Your task to perform on an android device: Is it going to rain this weekend? Image 0: 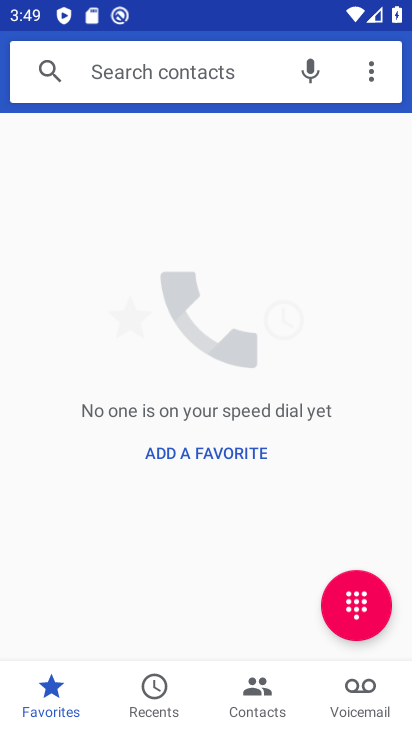
Step 0: press home button
Your task to perform on an android device: Is it going to rain this weekend? Image 1: 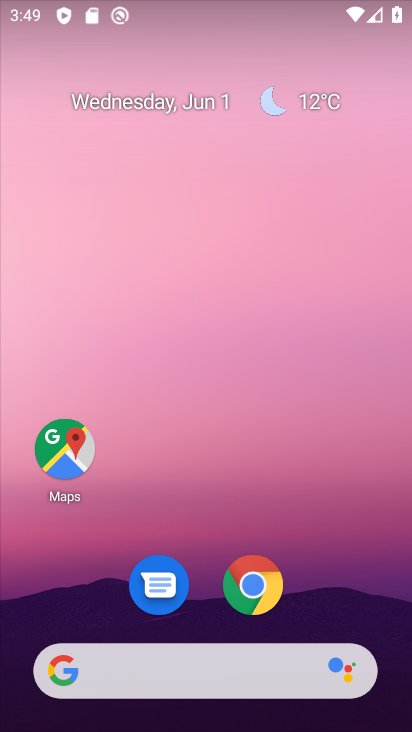
Step 1: click (293, 103)
Your task to perform on an android device: Is it going to rain this weekend? Image 2: 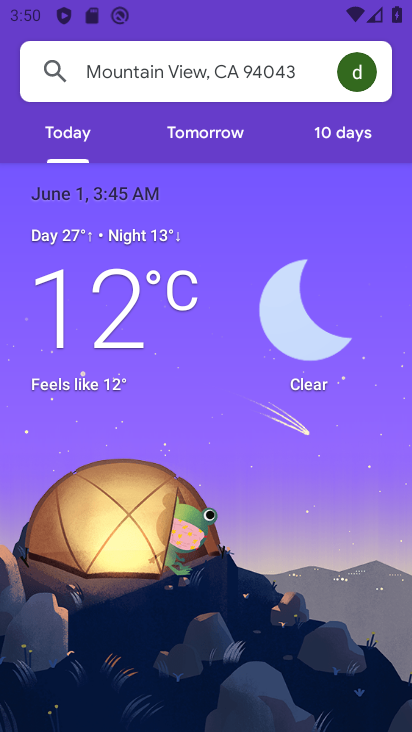
Step 2: click (330, 127)
Your task to perform on an android device: Is it going to rain this weekend? Image 3: 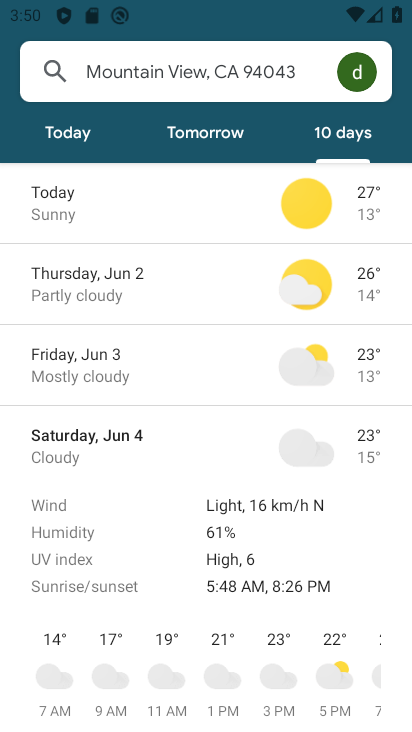
Step 3: task complete